Your task to perform on an android device: delete location history Image 0: 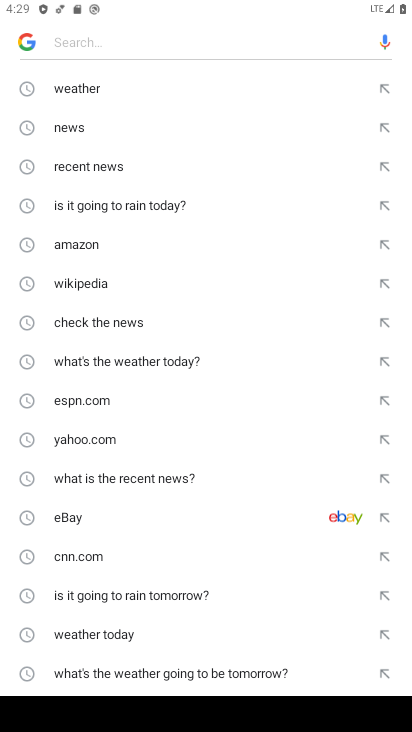
Step 0: press back button
Your task to perform on an android device: delete location history Image 1: 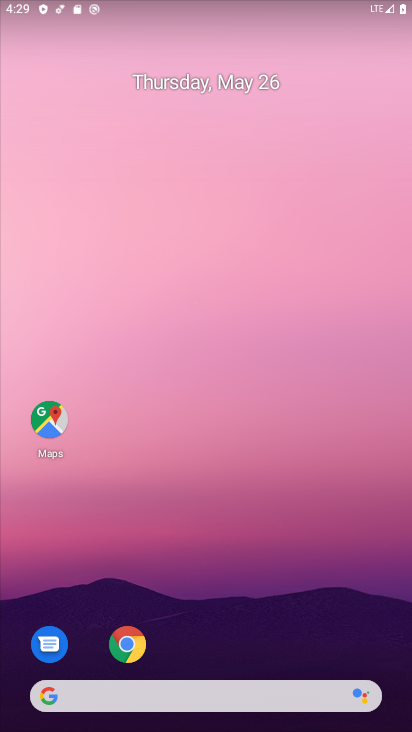
Step 1: drag from (235, 611) to (169, 20)
Your task to perform on an android device: delete location history Image 2: 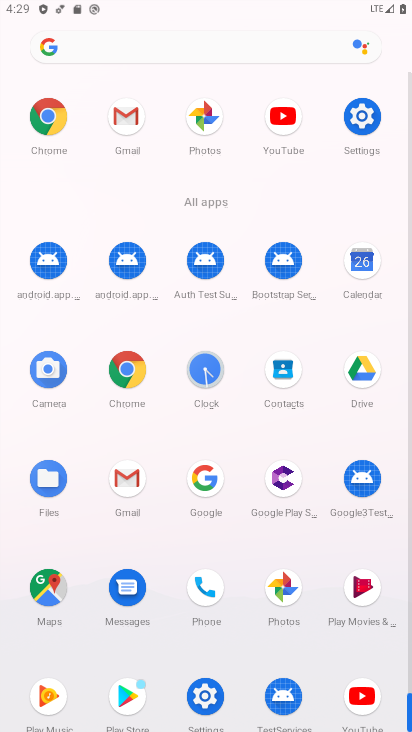
Step 2: drag from (17, 634) to (13, 296)
Your task to perform on an android device: delete location history Image 3: 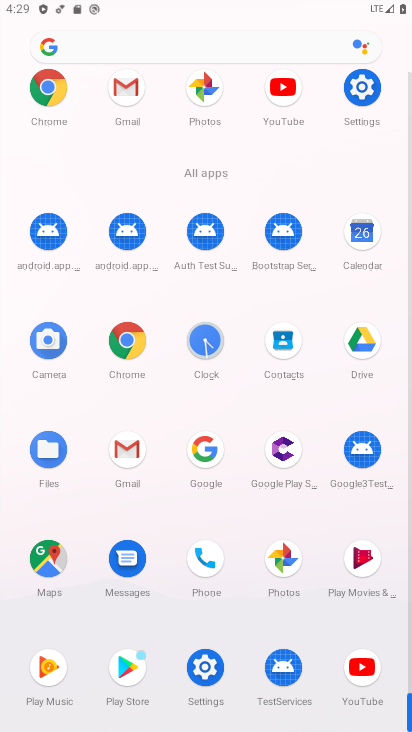
Step 3: click (202, 663)
Your task to perform on an android device: delete location history Image 4: 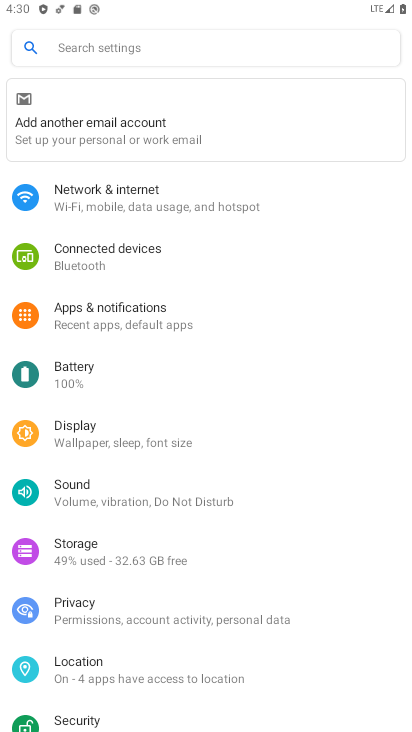
Step 4: drag from (284, 577) to (319, 225)
Your task to perform on an android device: delete location history Image 5: 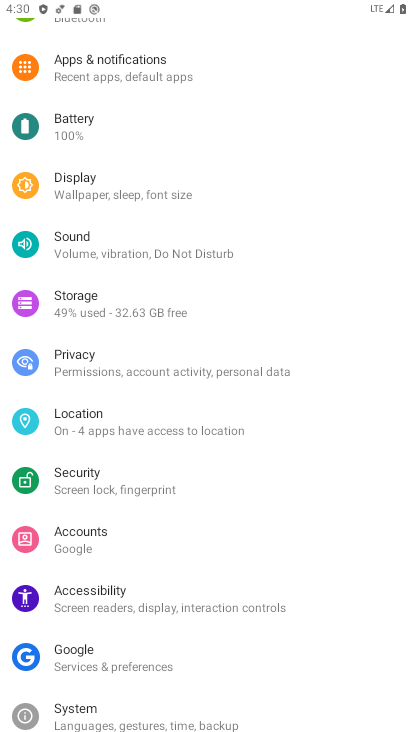
Step 5: click (171, 422)
Your task to perform on an android device: delete location history Image 6: 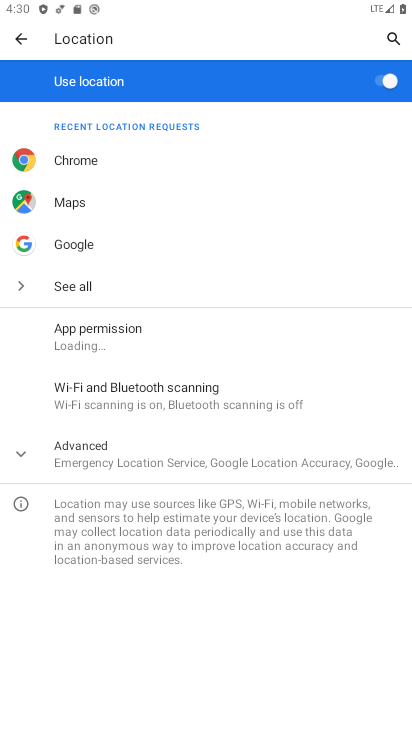
Step 6: click (55, 463)
Your task to perform on an android device: delete location history Image 7: 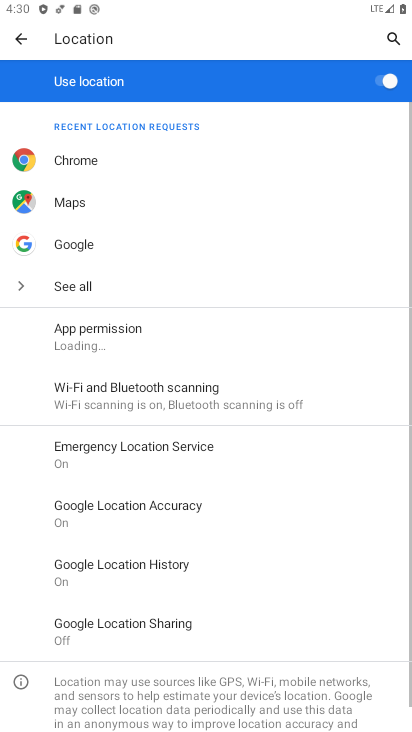
Step 7: drag from (340, 568) to (301, 238)
Your task to perform on an android device: delete location history Image 8: 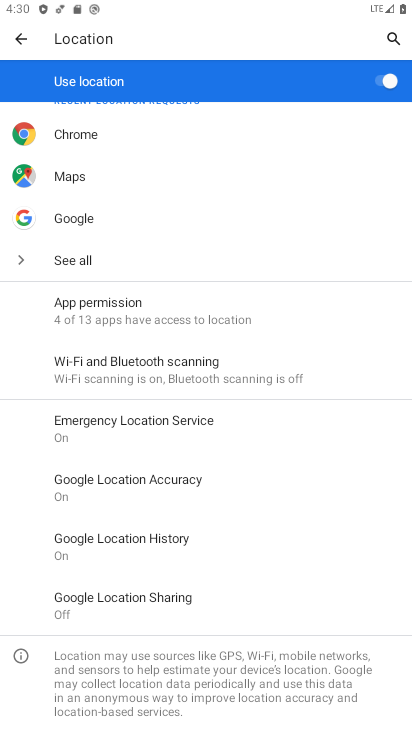
Step 8: click (146, 537)
Your task to perform on an android device: delete location history Image 9: 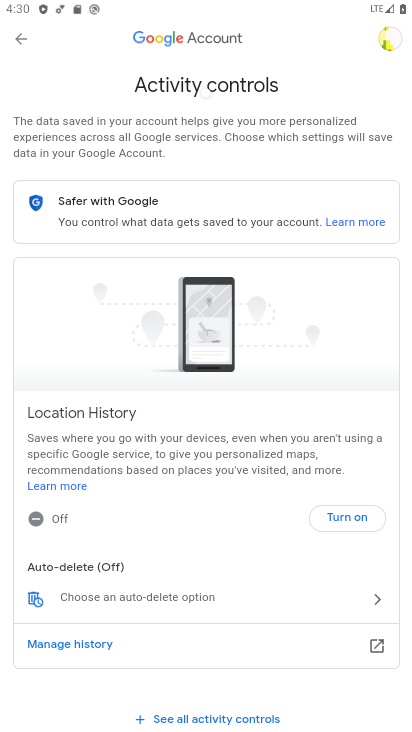
Step 9: drag from (232, 550) to (280, 146)
Your task to perform on an android device: delete location history Image 10: 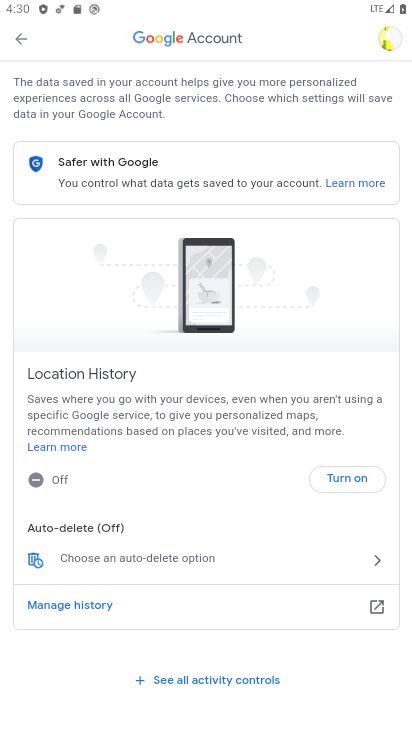
Step 10: click (105, 555)
Your task to perform on an android device: delete location history Image 11: 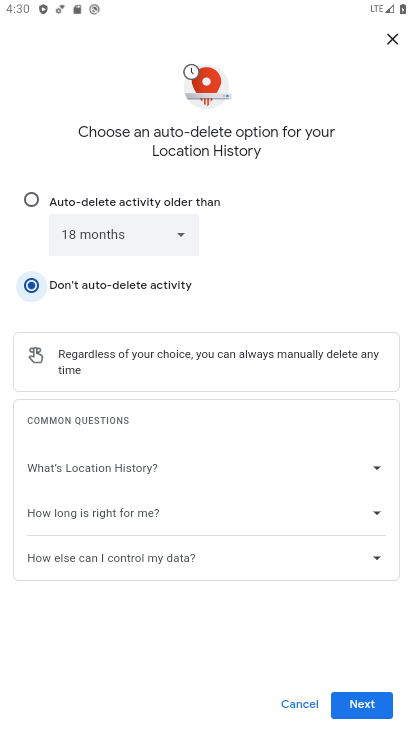
Step 11: click (29, 201)
Your task to perform on an android device: delete location history Image 12: 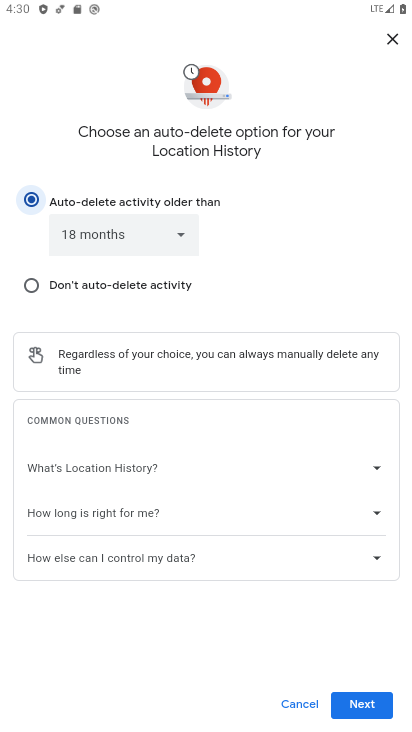
Step 12: click (365, 698)
Your task to perform on an android device: delete location history Image 13: 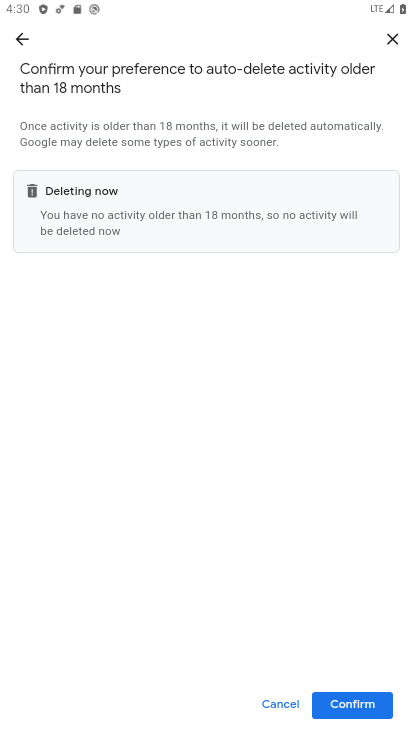
Step 13: click (365, 698)
Your task to perform on an android device: delete location history Image 14: 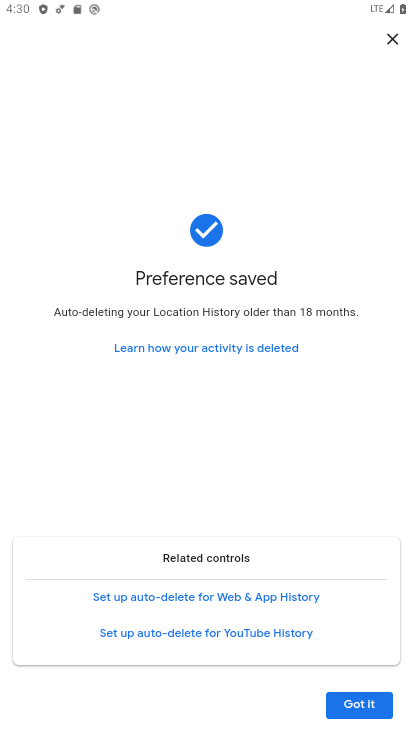
Step 14: task complete